Your task to perform on an android device: turn off airplane mode Image 0: 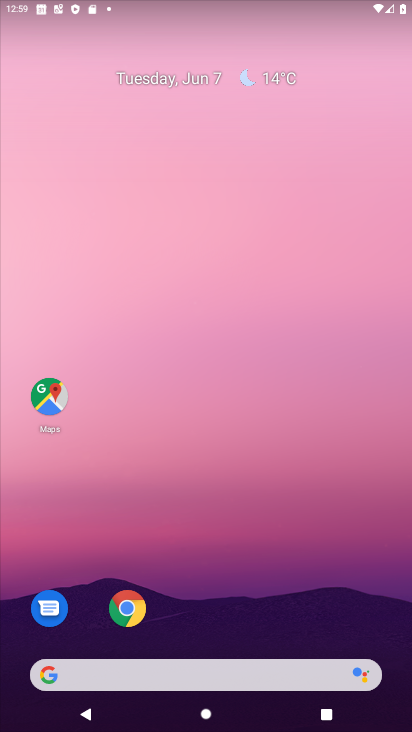
Step 0: drag from (268, 2) to (257, 655)
Your task to perform on an android device: turn off airplane mode Image 1: 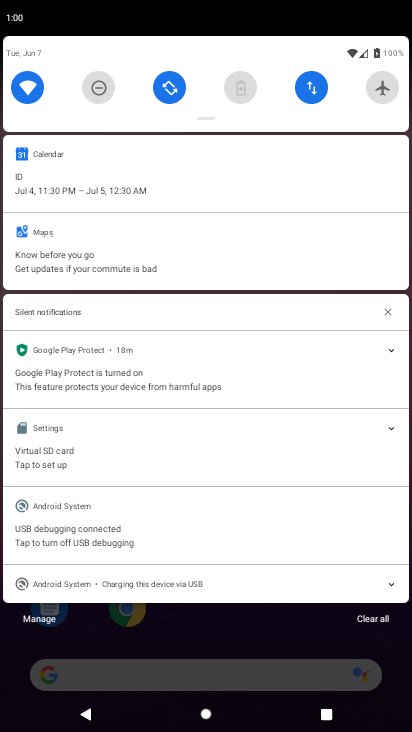
Step 1: task complete